Your task to perform on an android device: install app "Adobe Express: Graphic Design" Image 0: 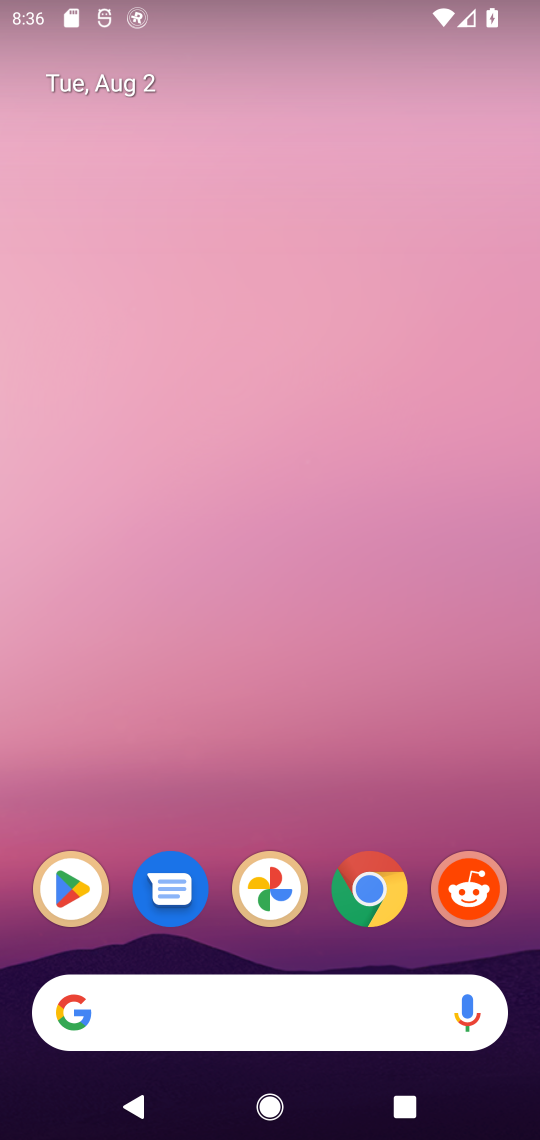
Step 0: click (55, 890)
Your task to perform on an android device: install app "Adobe Express: Graphic Design" Image 1: 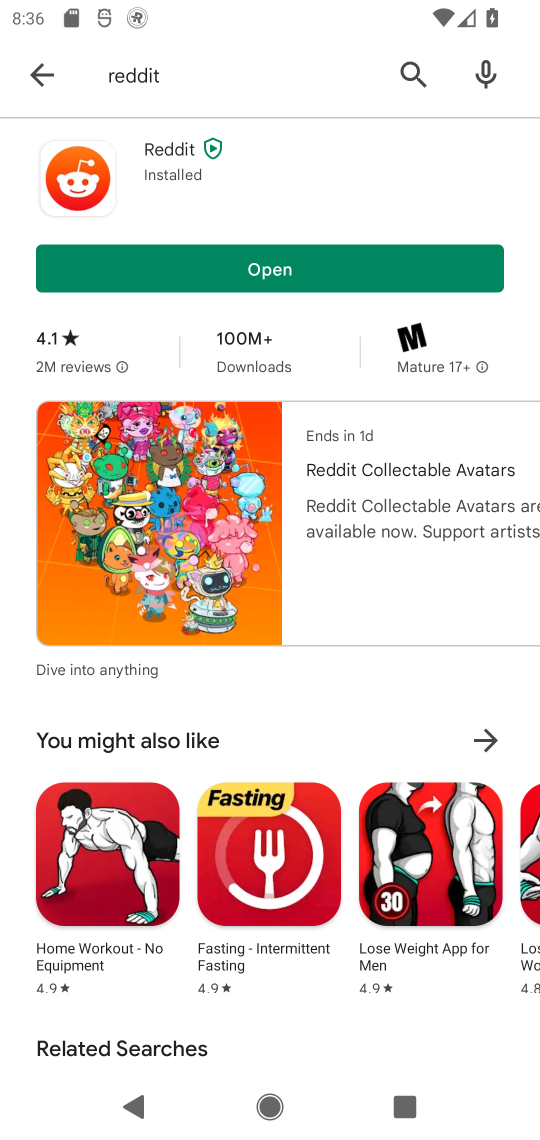
Step 1: click (415, 67)
Your task to perform on an android device: install app "Adobe Express: Graphic Design" Image 2: 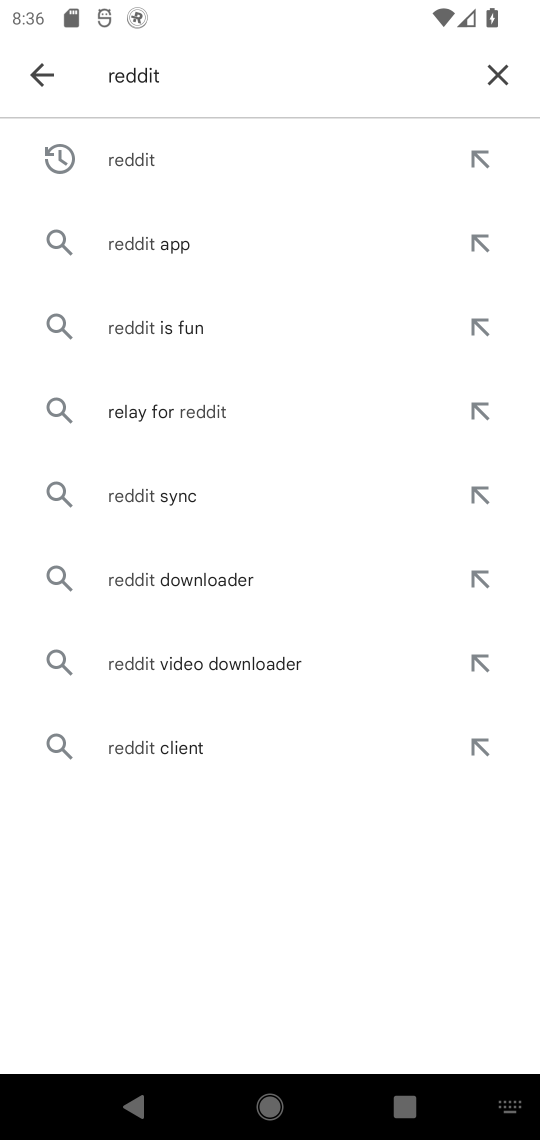
Step 2: click (486, 75)
Your task to perform on an android device: install app "Adobe Express: Graphic Design" Image 3: 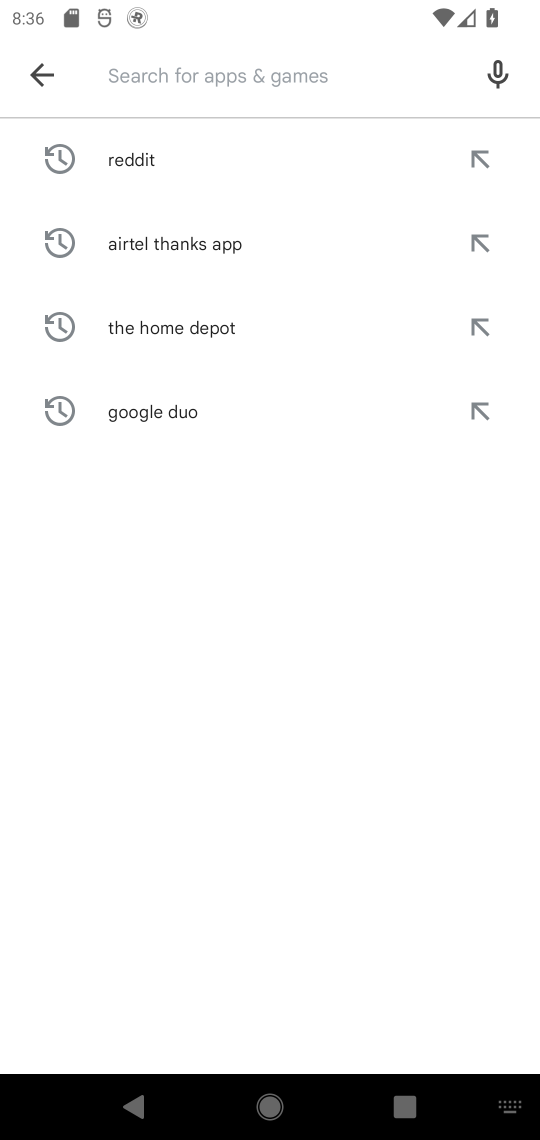
Step 3: type "Adobe Express: Graphic Design"
Your task to perform on an android device: install app "Adobe Express: Graphic Design" Image 4: 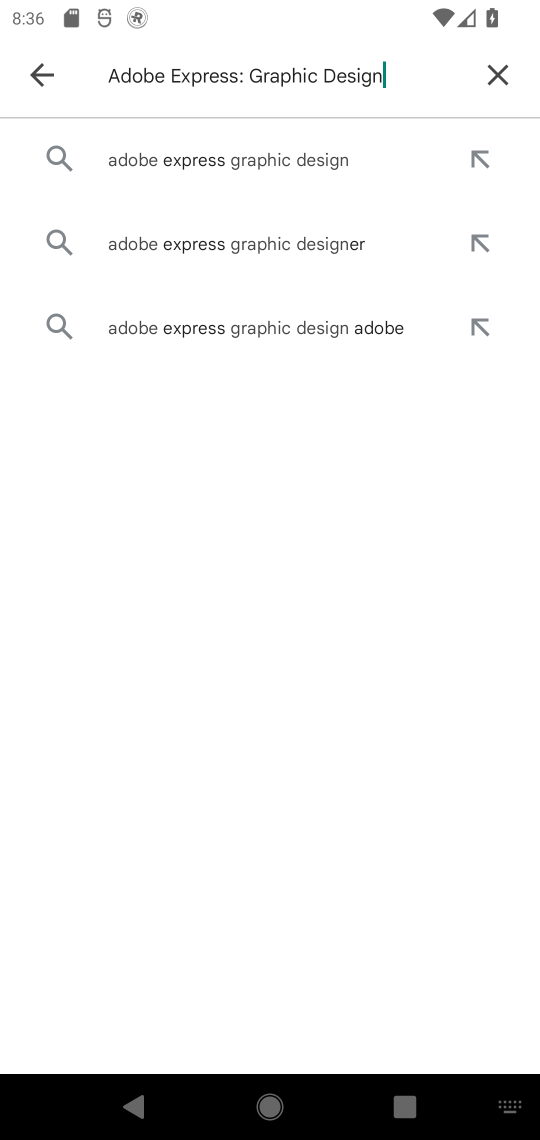
Step 4: click (143, 157)
Your task to perform on an android device: install app "Adobe Express: Graphic Design" Image 5: 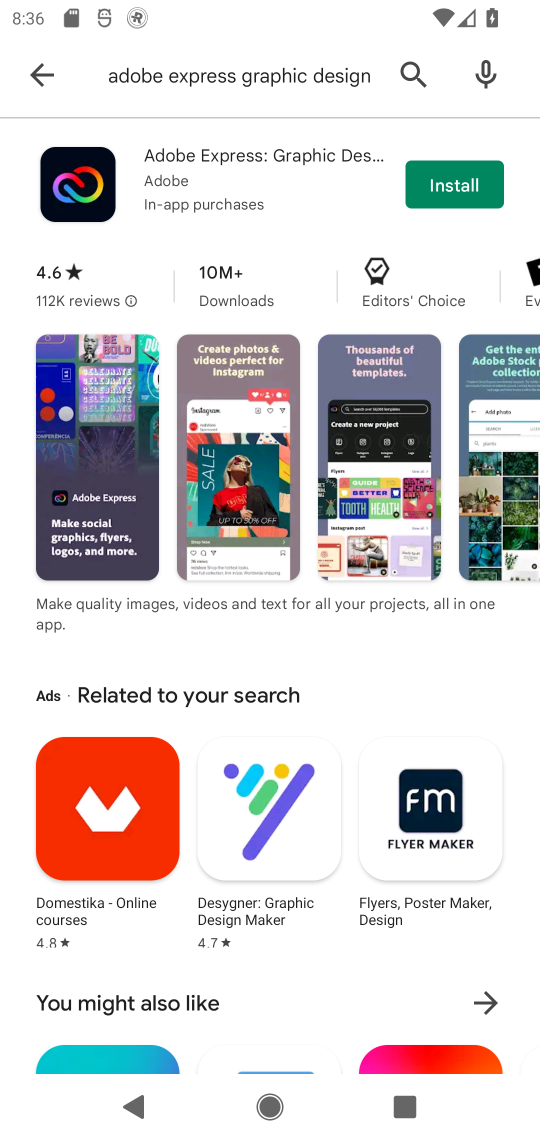
Step 5: click (460, 193)
Your task to perform on an android device: install app "Adobe Express: Graphic Design" Image 6: 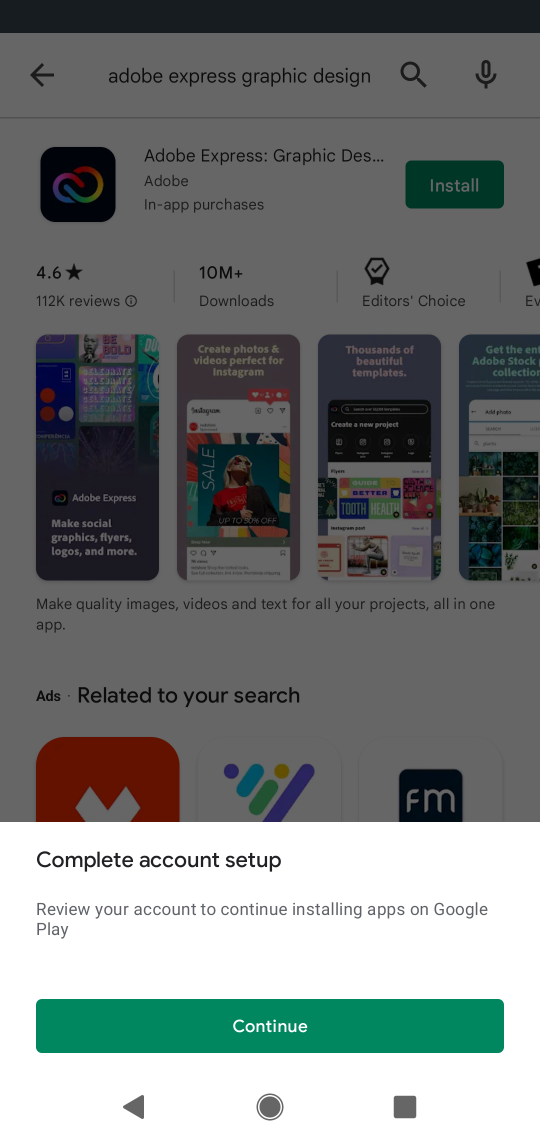
Step 6: click (319, 1028)
Your task to perform on an android device: install app "Adobe Express: Graphic Design" Image 7: 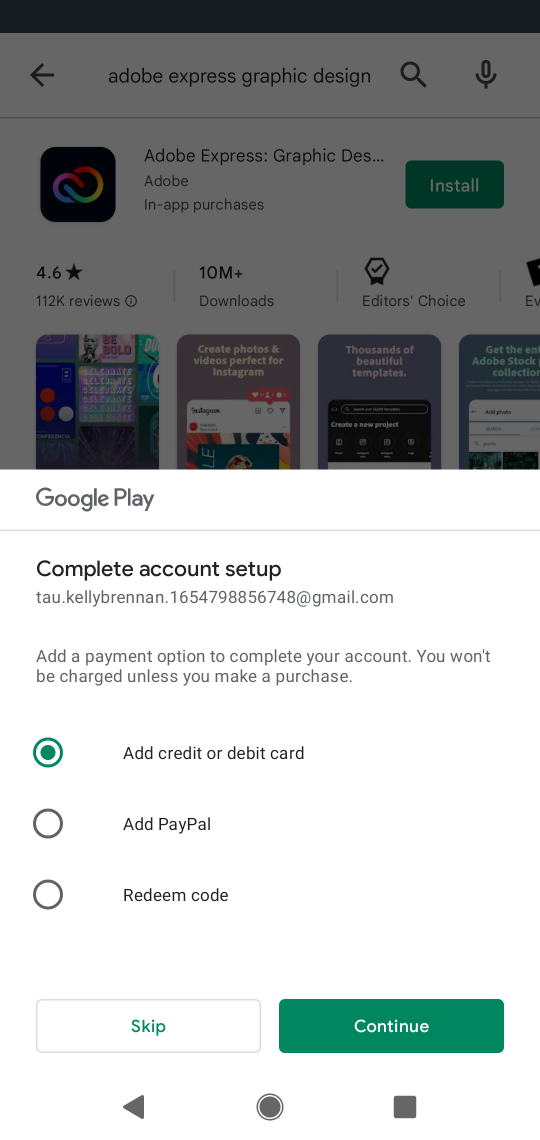
Step 7: click (141, 1020)
Your task to perform on an android device: install app "Adobe Express: Graphic Design" Image 8: 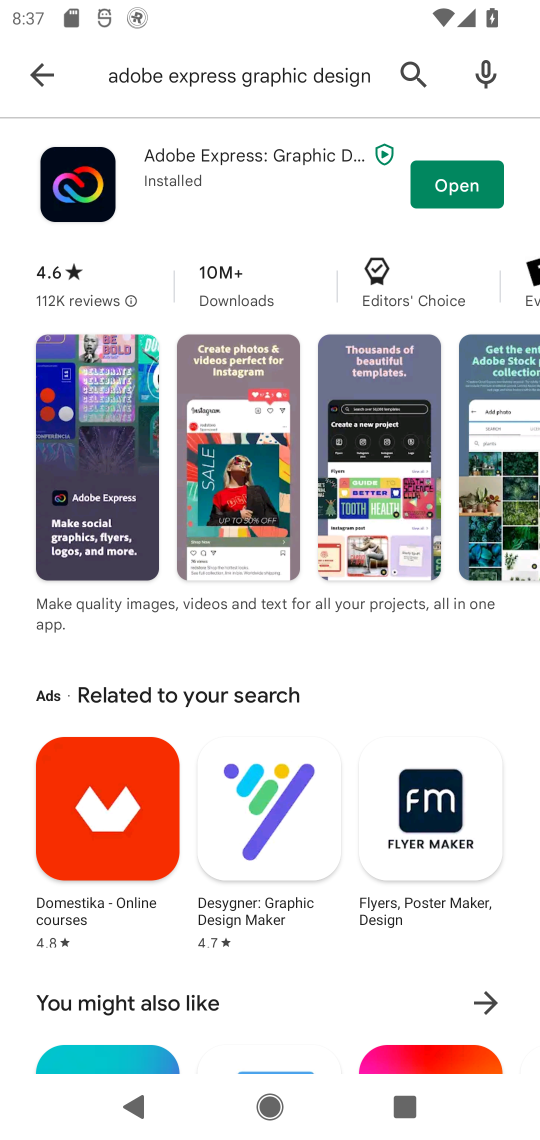
Step 8: task complete